Your task to perform on an android device: What's on my calendar tomorrow? Image 0: 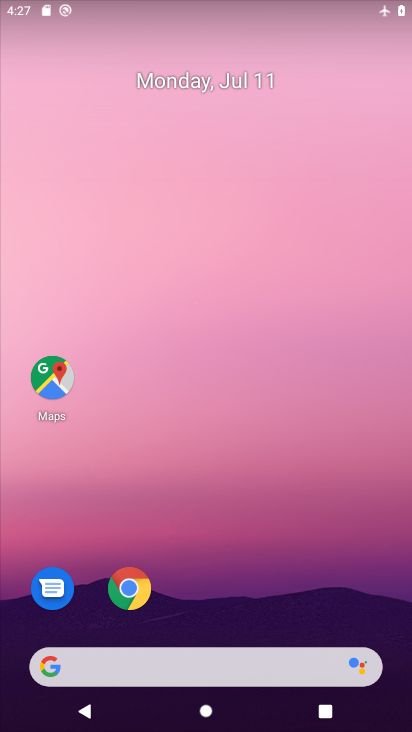
Step 0: drag from (325, 619) to (334, 170)
Your task to perform on an android device: What's on my calendar tomorrow? Image 1: 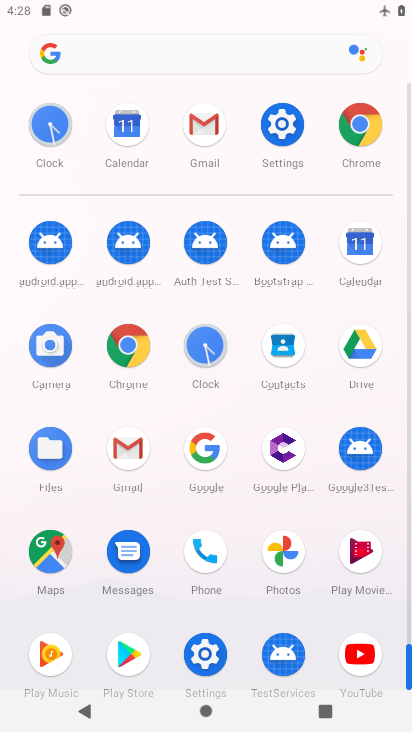
Step 1: click (367, 247)
Your task to perform on an android device: What's on my calendar tomorrow? Image 2: 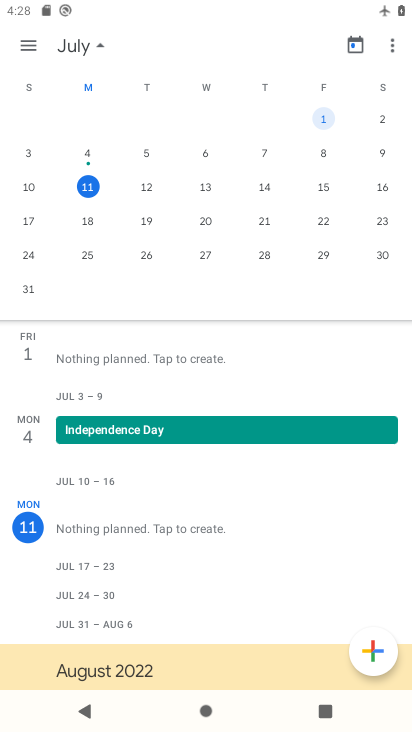
Step 2: click (154, 190)
Your task to perform on an android device: What's on my calendar tomorrow? Image 3: 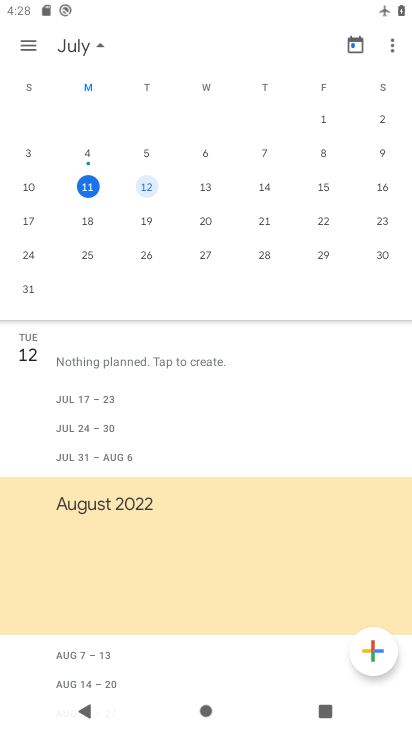
Step 3: task complete